Your task to perform on an android device: Do I have any events tomorrow? Image 0: 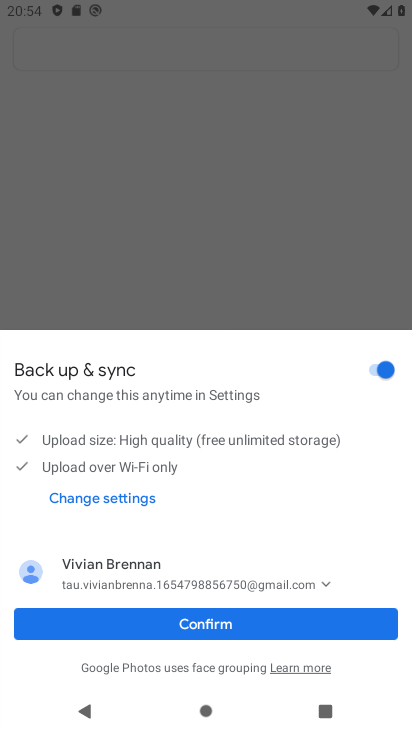
Step 0: press home button
Your task to perform on an android device: Do I have any events tomorrow? Image 1: 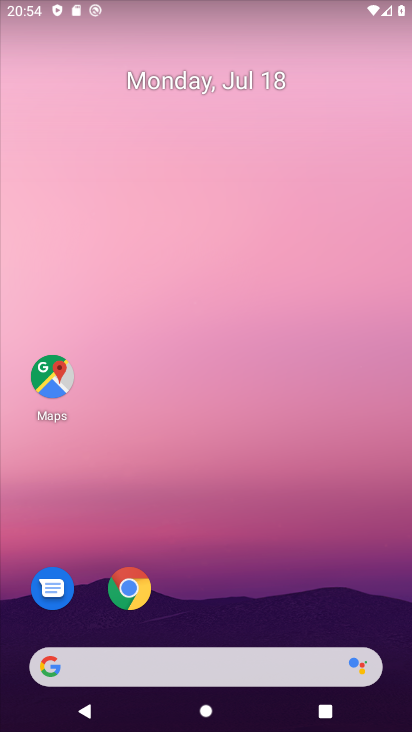
Step 1: drag from (173, 671) to (298, 85)
Your task to perform on an android device: Do I have any events tomorrow? Image 2: 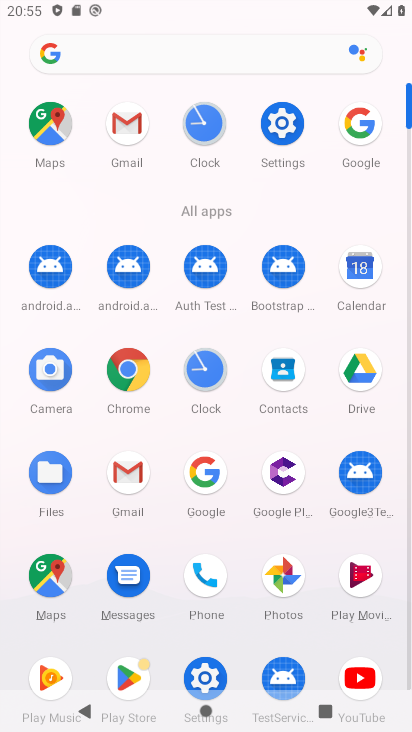
Step 2: click (364, 269)
Your task to perform on an android device: Do I have any events tomorrow? Image 3: 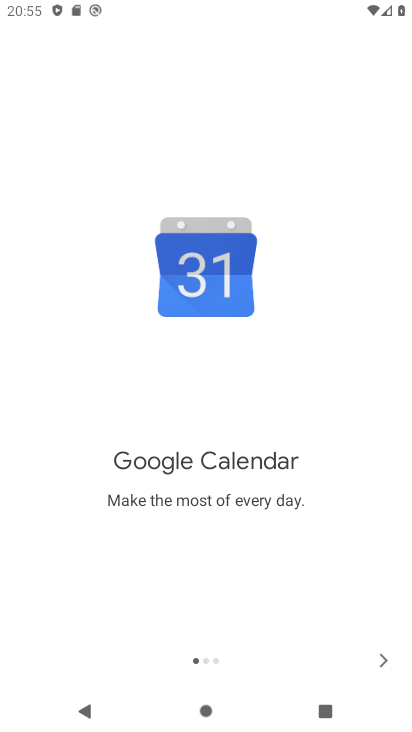
Step 3: click (378, 653)
Your task to perform on an android device: Do I have any events tomorrow? Image 4: 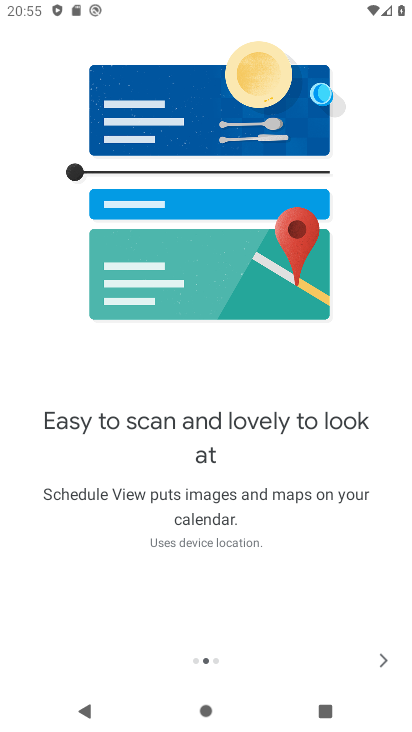
Step 4: click (378, 653)
Your task to perform on an android device: Do I have any events tomorrow? Image 5: 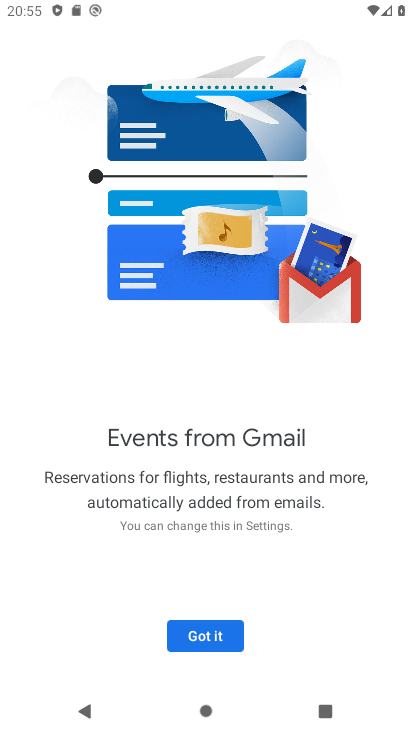
Step 5: click (241, 634)
Your task to perform on an android device: Do I have any events tomorrow? Image 6: 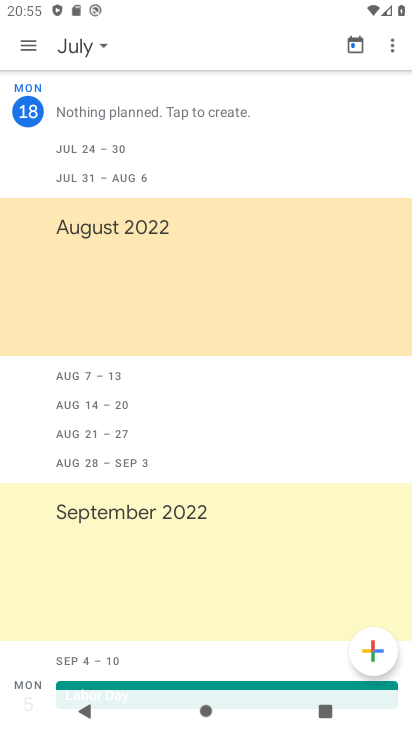
Step 6: click (79, 43)
Your task to perform on an android device: Do I have any events tomorrow? Image 7: 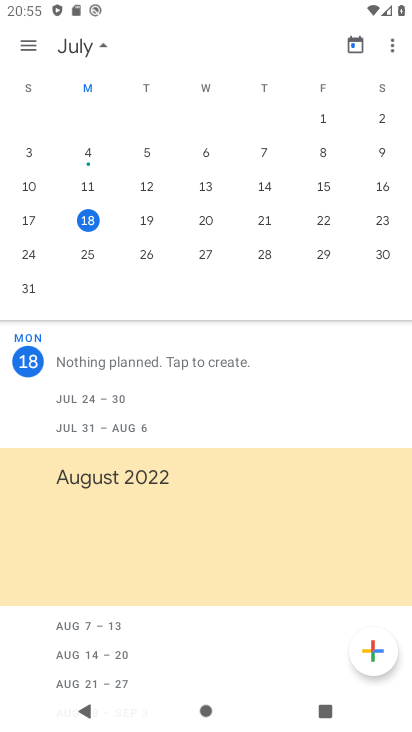
Step 7: click (149, 225)
Your task to perform on an android device: Do I have any events tomorrow? Image 8: 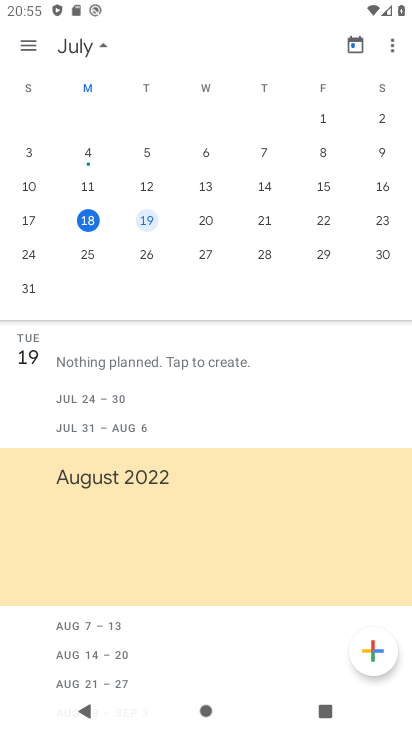
Step 8: click (25, 45)
Your task to perform on an android device: Do I have any events tomorrow? Image 9: 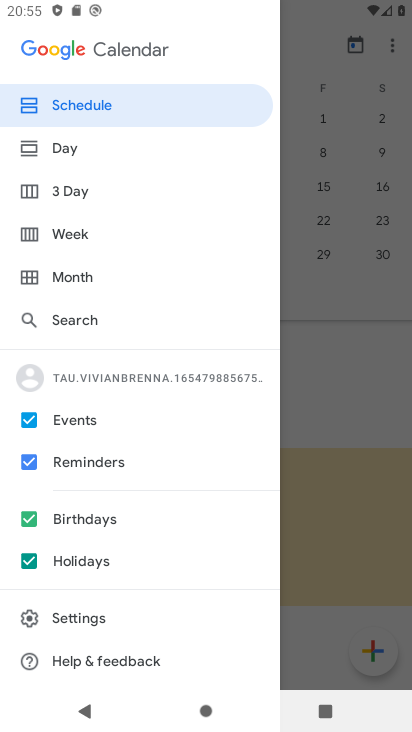
Step 9: click (69, 153)
Your task to perform on an android device: Do I have any events tomorrow? Image 10: 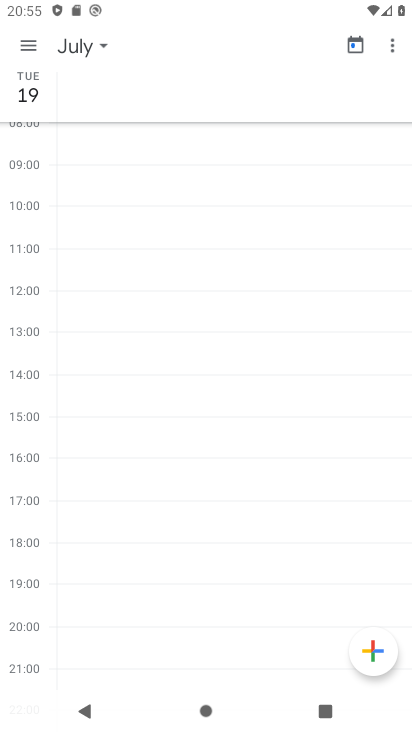
Step 10: click (26, 43)
Your task to perform on an android device: Do I have any events tomorrow? Image 11: 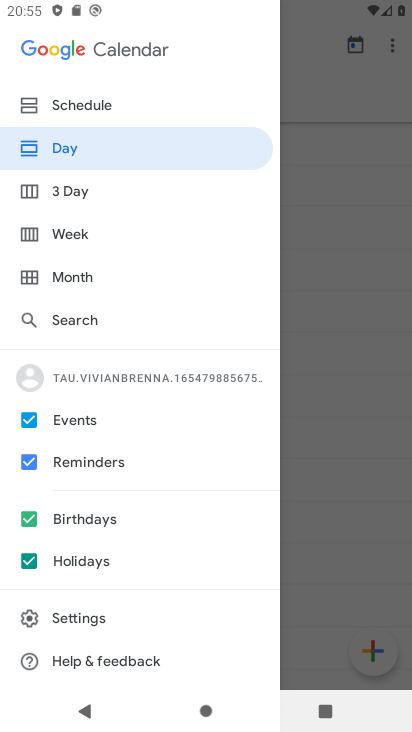
Step 11: click (89, 107)
Your task to perform on an android device: Do I have any events tomorrow? Image 12: 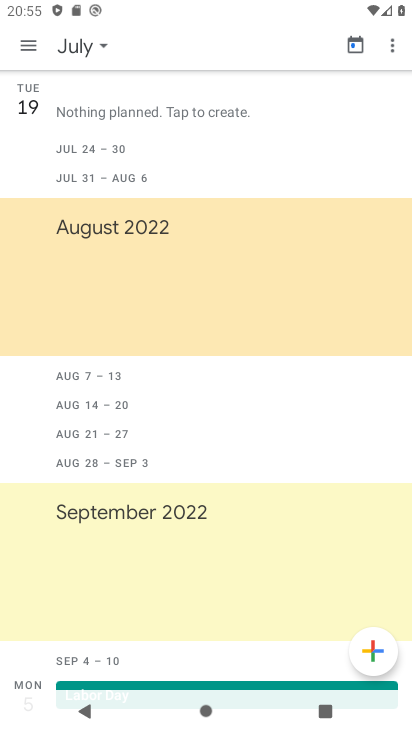
Step 12: task complete